Your task to perform on an android device: toggle translation in the chrome app Image 0: 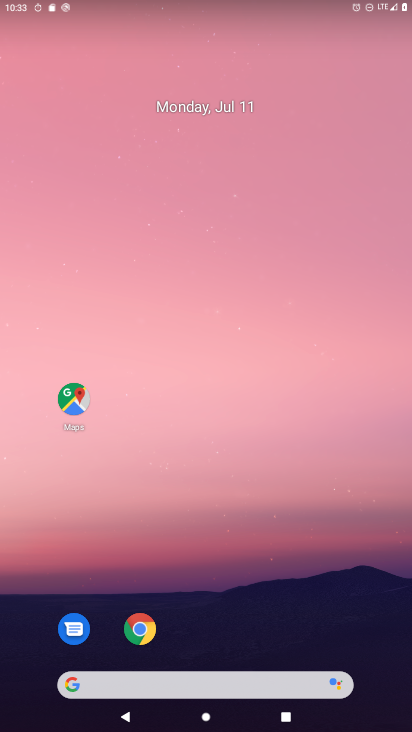
Step 0: click (132, 622)
Your task to perform on an android device: toggle translation in the chrome app Image 1: 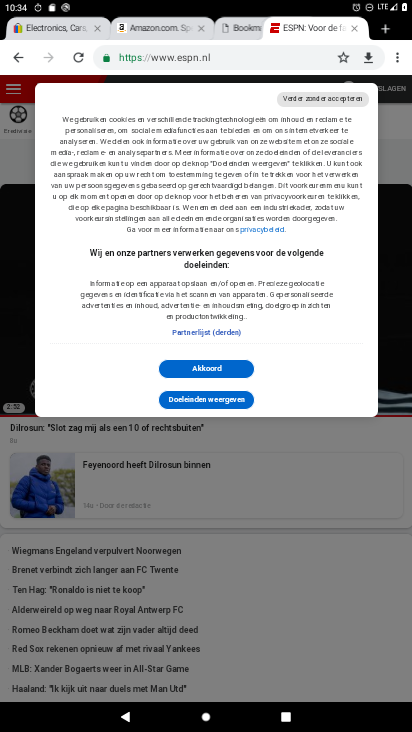
Step 1: click (400, 70)
Your task to perform on an android device: toggle translation in the chrome app Image 2: 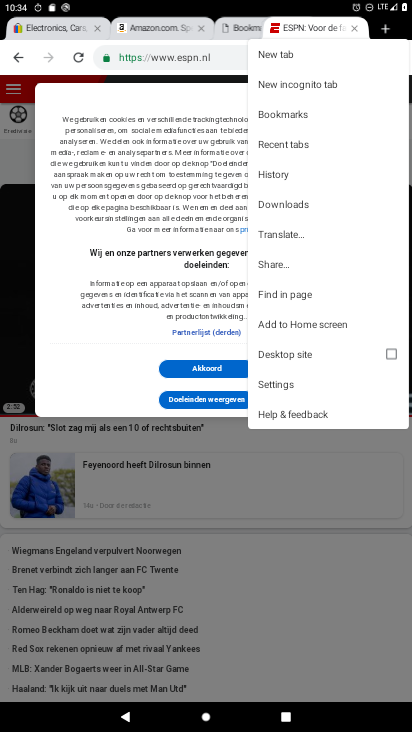
Step 2: click (263, 380)
Your task to perform on an android device: toggle translation in the chrome app Image 3: 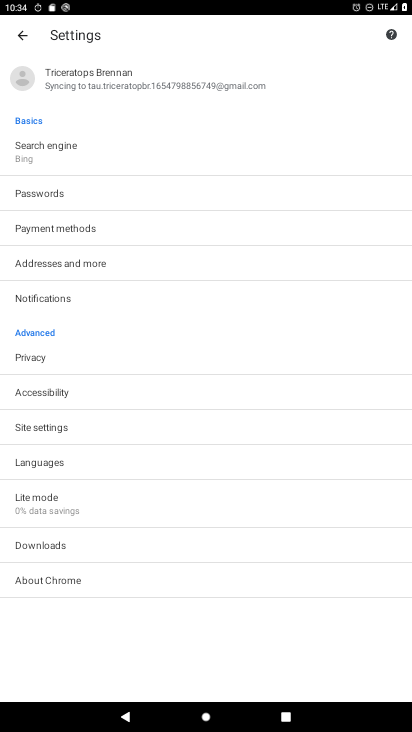
Step 3: click (100, 461)
Your task to perform on an android device: toggle translation in the chrome app Image 4: 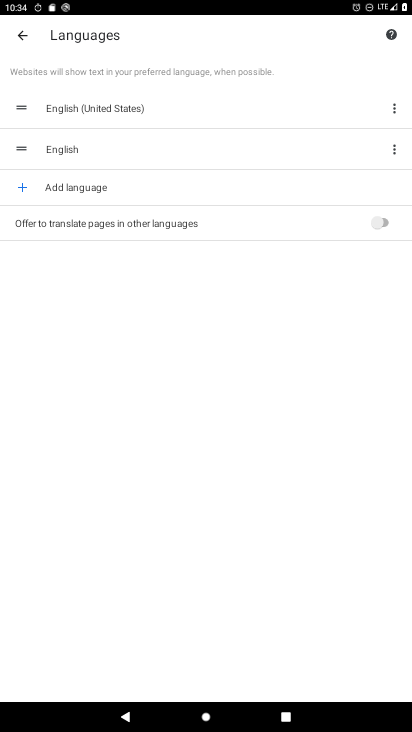
Step 4: click (380, 226)
Your task to perform on an android device: toggle translation in the chrome app Image 5: 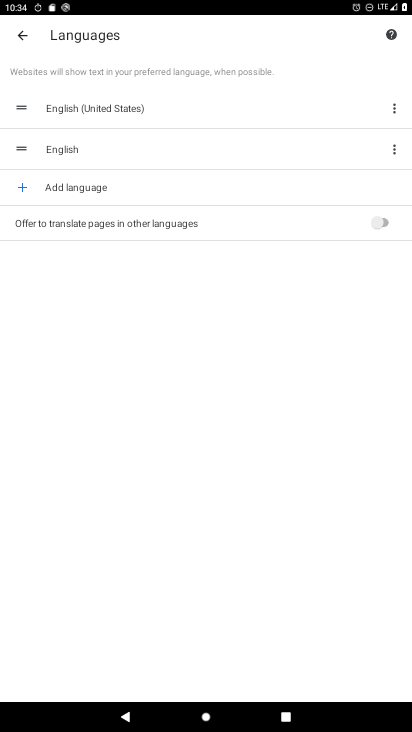
Step 5: click (380, 226)
Your task to perform on an android device: toggle translation in the chrome app Image 6: 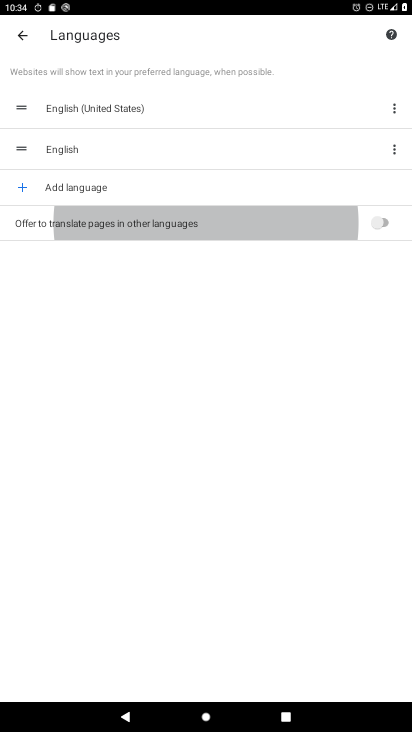
Step 6: click (380, 226)
Your task to perform on an android device: toggle translation in the chrome app Image 7: 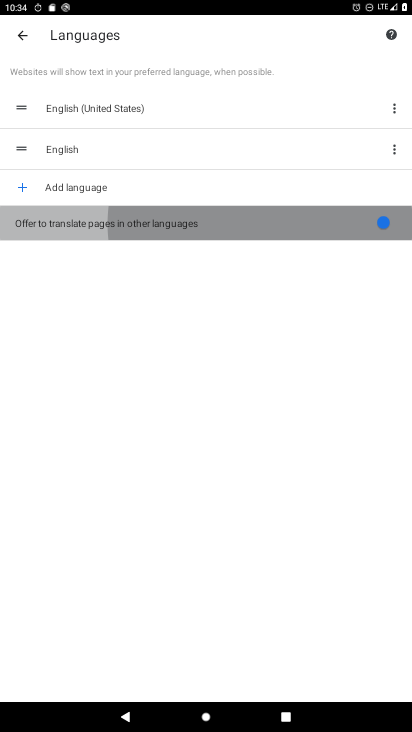
Step 7: click (380, 226)
Your task to perform on an android device: toggle translation in the chrome app Image 8: 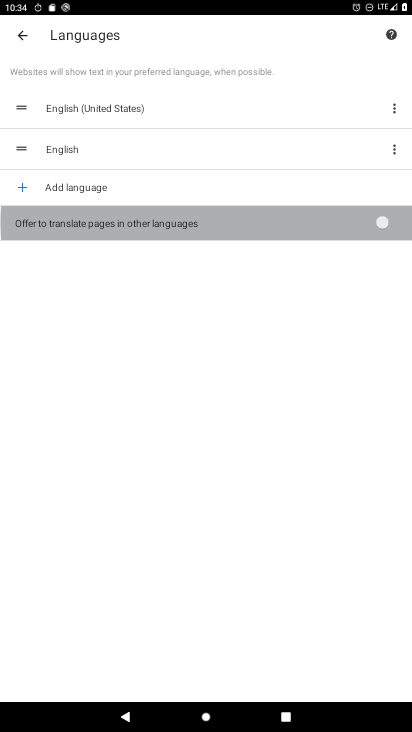
Step 8: click (380, 226)
Your task to perform on an android device: toggle translation in the chrome app Image 9: 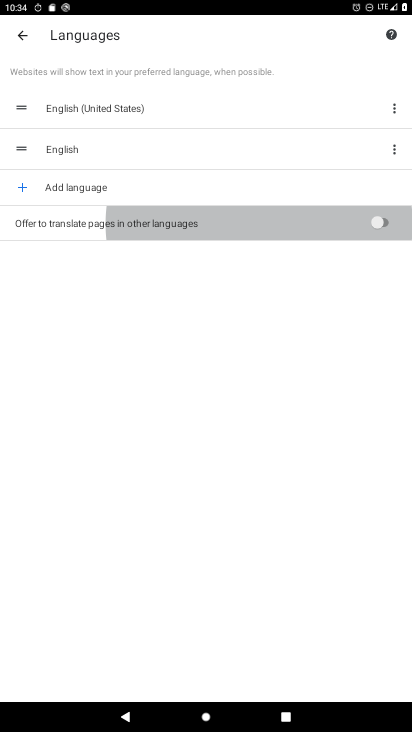
Step 9: click (380, 226)
Your task to perform on an android device: toggle translation in the chrome app Image 10: 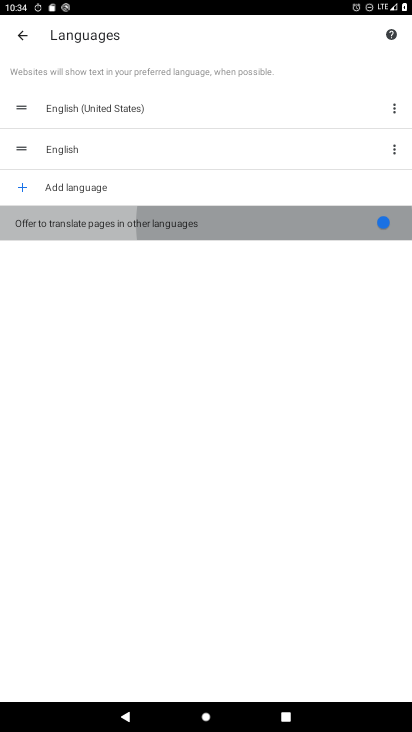
Step 10: click (380, 226)
Your task to perform on an android device: toggle translation in the chrome app Image 11: 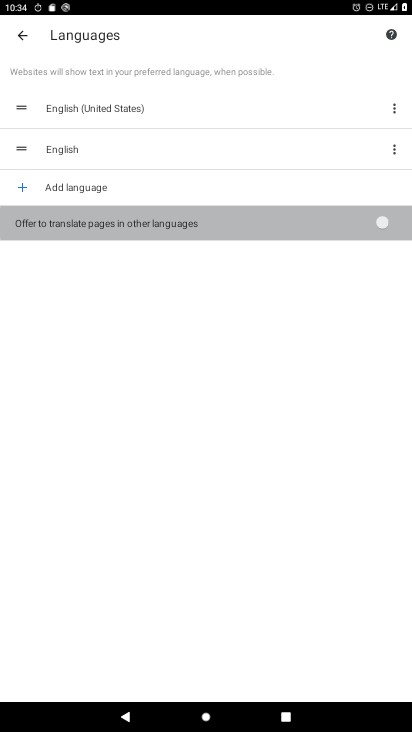
Step 11: click (380, 226)
Your task to perform on an android device: toggle translation in the chrome app Image 12: 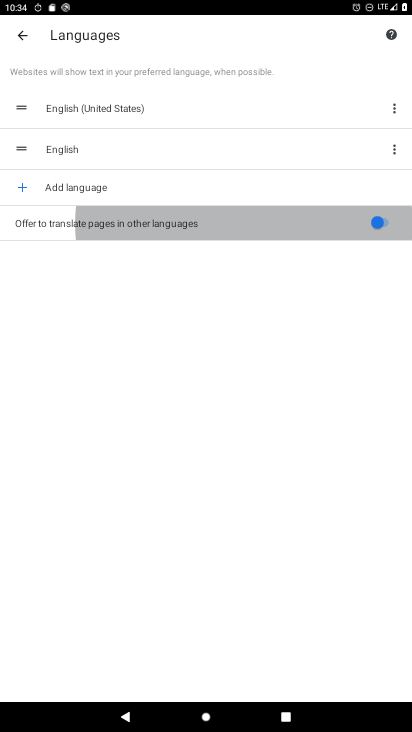
Step 12: click (380, 226)
Your task to perform on an android device: toggle translation in the chrome app Image 13: 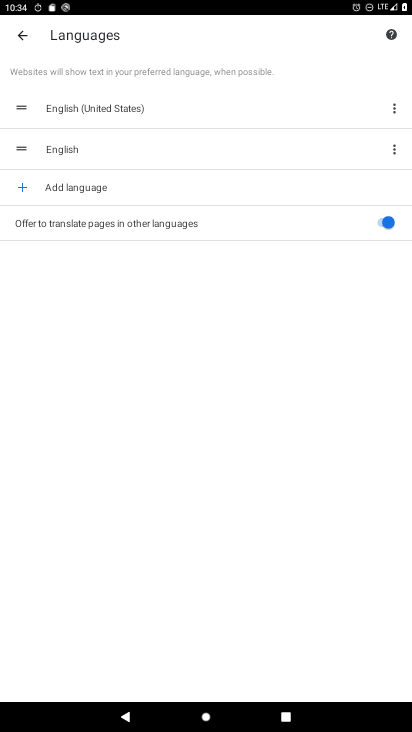
Step 13: task complete